Your task to perform on an android device: Open Google Image 0: 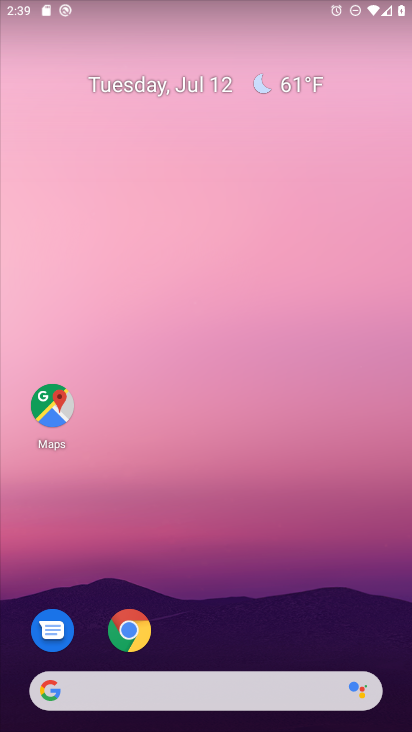
Step 0: drag from (225, 642) to (222, 133)
Your task to perform on an android device: Open Google Image 1: 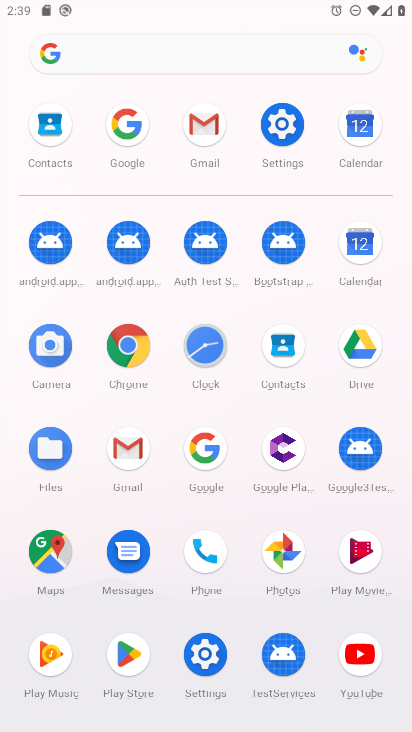
Step 1: click (124, 124)
Your task to perform on an android device: Open Google Image 2: 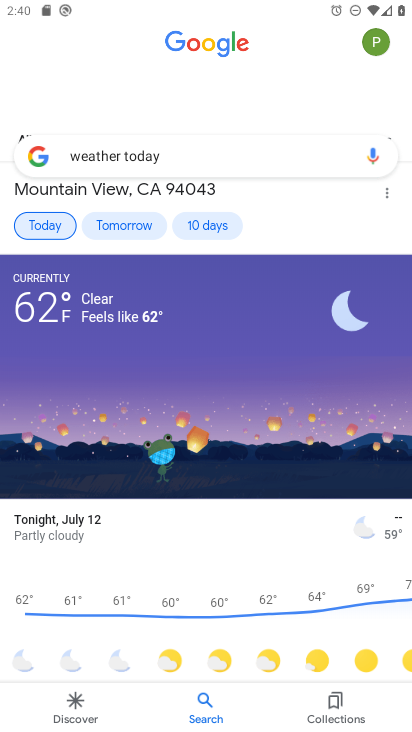
Step 2: task complete